Your task to perform on an android device: Show me popular videos on Youtube Image 0: 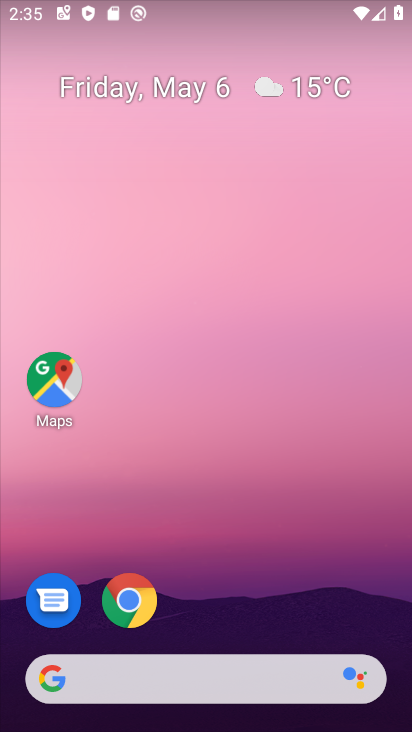
Step 0: drag from (279, 481) to (252, 29)
Your task to perform on an android device: Show me popular videos on Youtube Image 1: 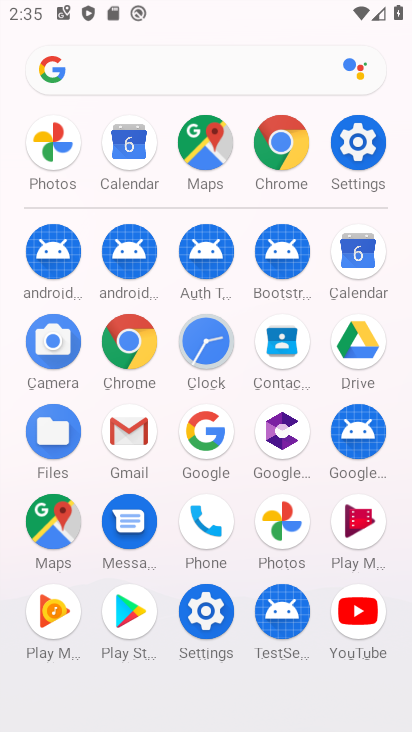
Step 1: drag from (1, 567) to (0, 268)
Your task to perform on an android device: Show me popular videos on Youtube Image 2: 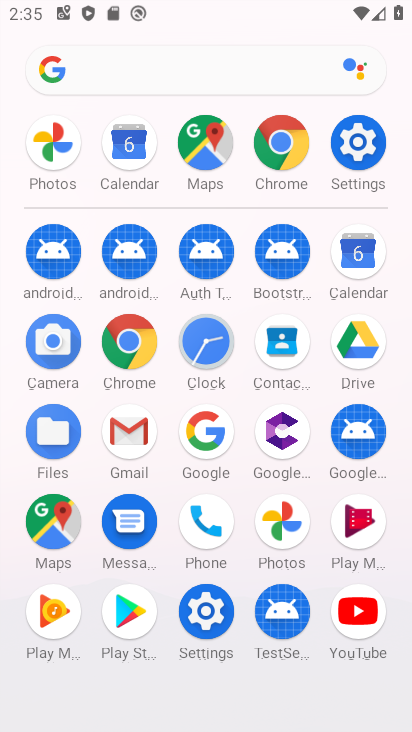
Step 2: click (358, 610)
Your task to perform on an android device: Show me popular videos on Youtube Image 3: 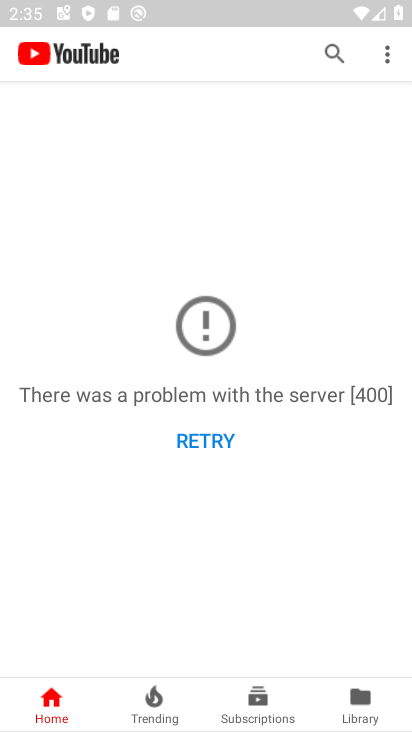
Step 3: task complete